Your task to perform on an android device: Is it going to rain today? Image 0: 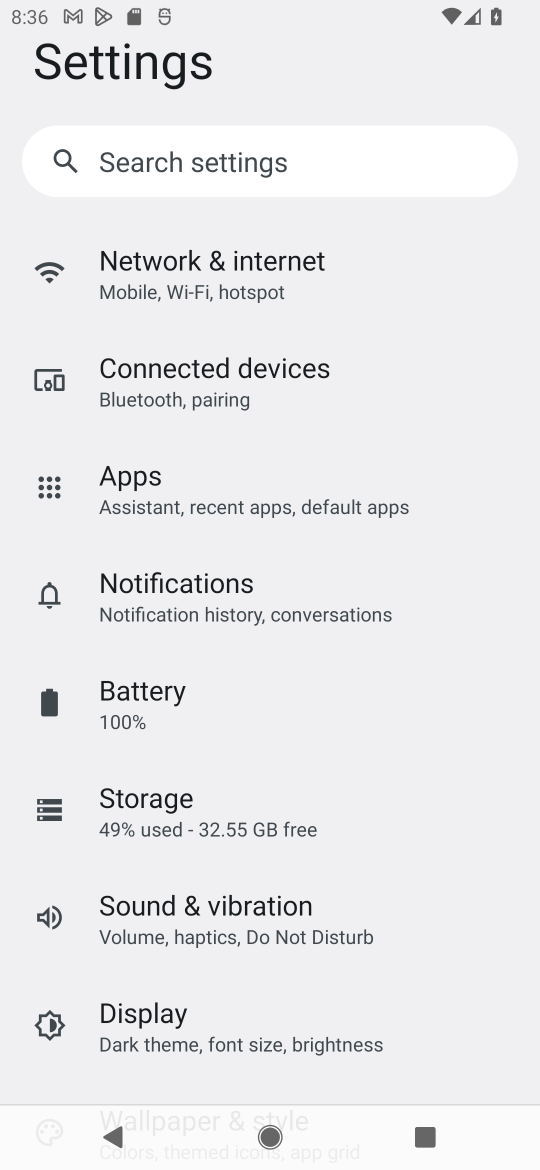
Step 0: press home button
Your task to perform on an android device: Is it going to rain today? Image 1: 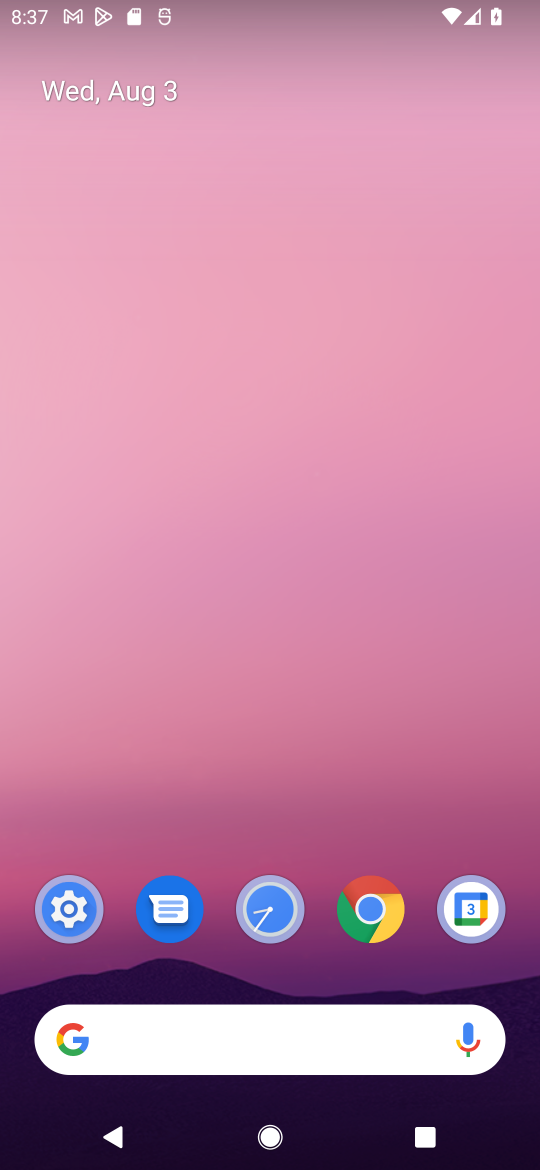
Step 1: click (343, 1045)
Your task to perform on an android device: Is it going to rain today? Image 2: 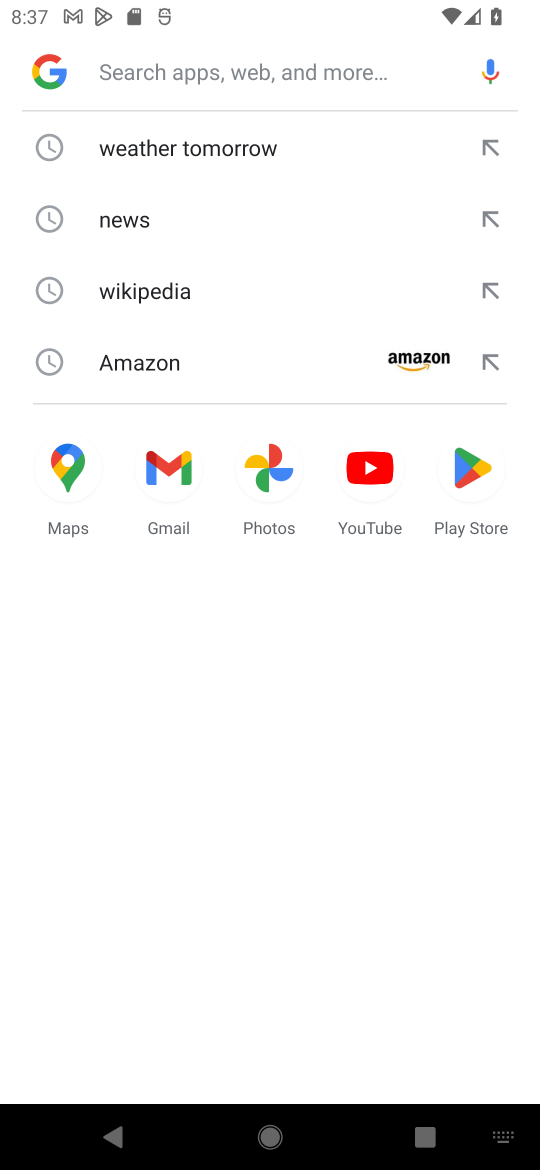
Step 2: type "weather"
Your task to perform on an android device: Is it going to rain today? Image 3: 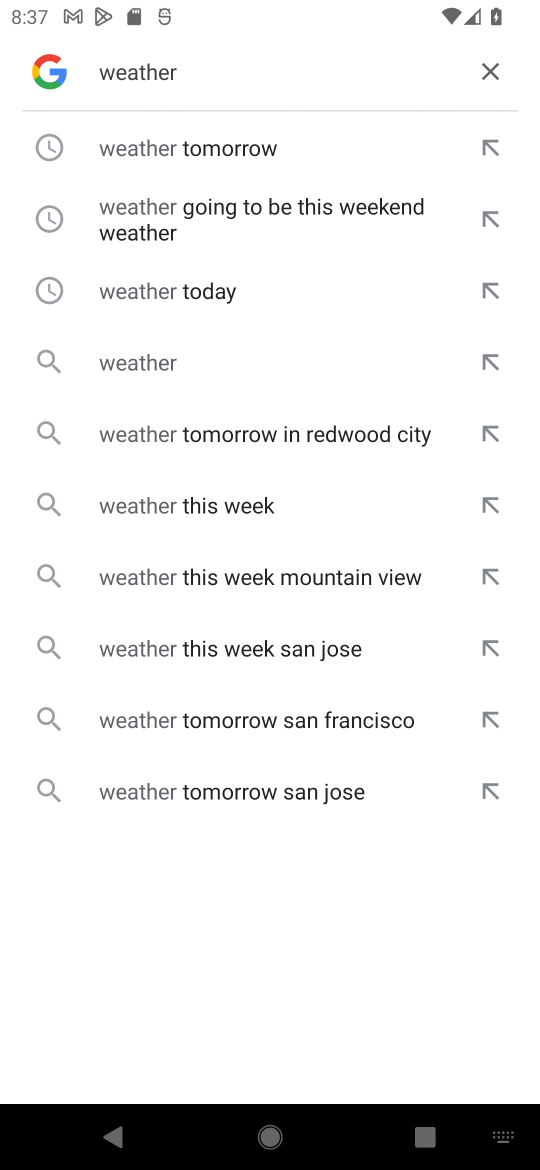
Step 3: click (221, 286)
Your task to perform on an android device: Is it going to rain today? Image 4: 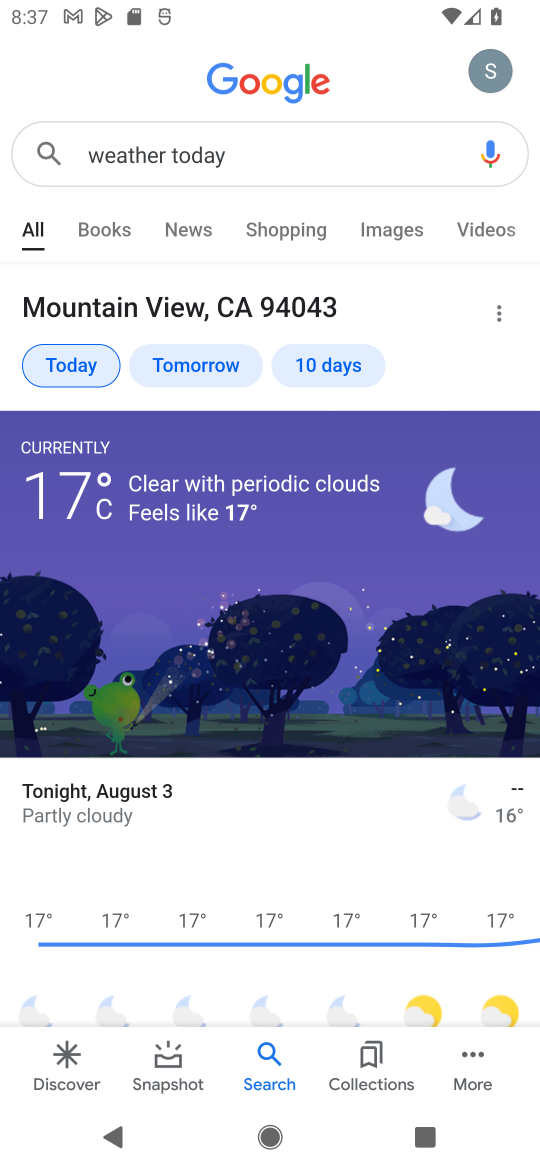
Step 4: task complete